Your task to perform on an android device: Open calendar and show me the second week of next month Image 0: 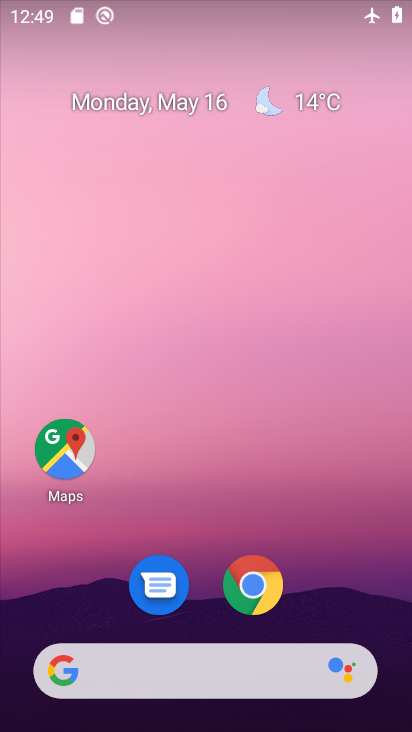
Step 0: drag from (322, 522) to (276, 41)
Your task to perform on an android device: Open calendar and show me the second week of next month Image 1: 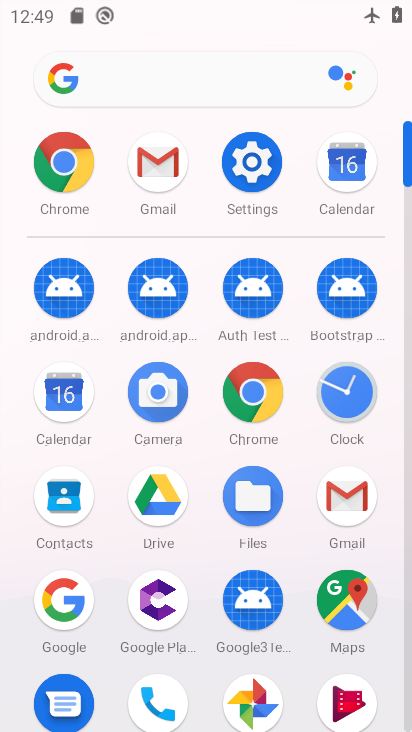
Step 1: click (334, 165)
Your task to perform on an android device: Open calendar and show me the second week of next month Image 2: 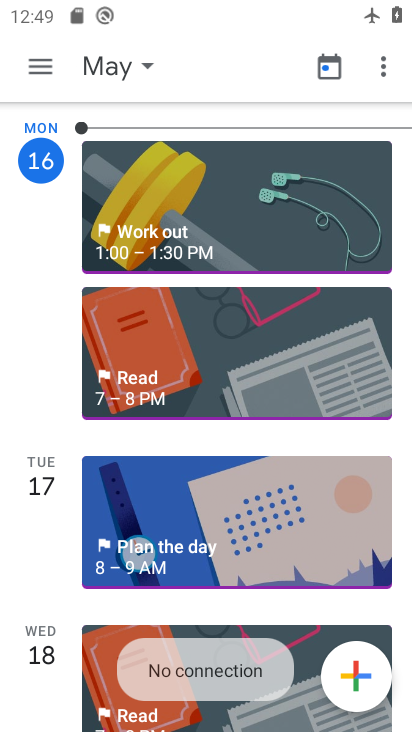
Step 2: click (41, 58)
Your task to perform on an android device: Open calendar and show me the second week of next month Image 3: 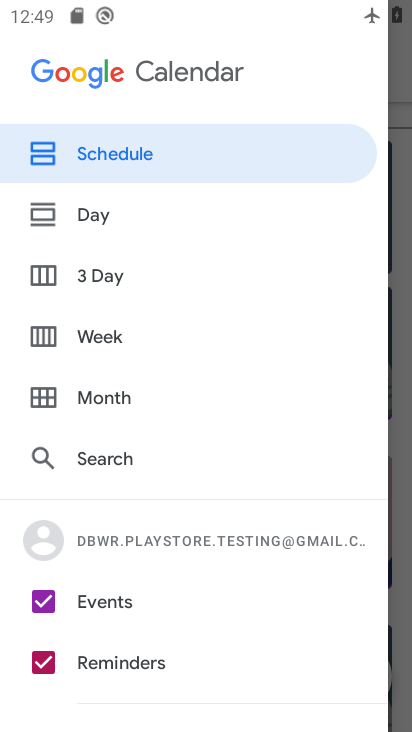
Step 3: click (97, 396)
Your task to perform on an android device: Open calendar and show me the second week of next month Image 4: 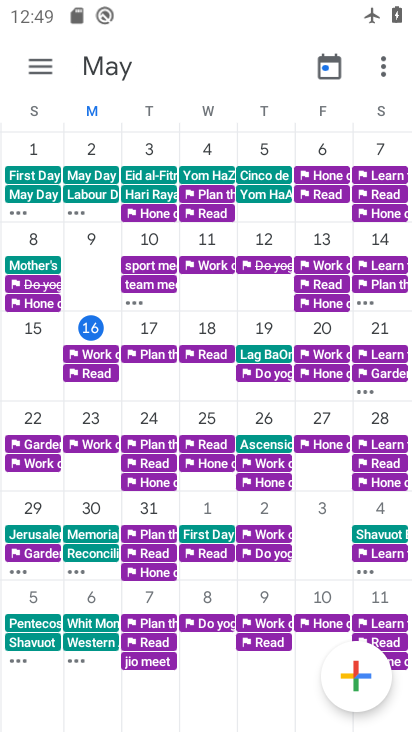
Step 4: drag from (370, 389) to (1, 428)
Your task to perform on an android device: Open calendar and show me the second week of next month Image 5: 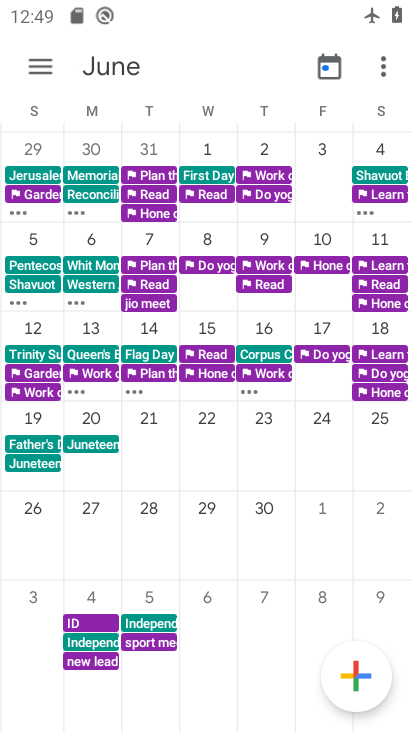
Step 5: click (37, 329)
Your task to perform on an android device: Open calendar and show me the second week of next month Image 6: 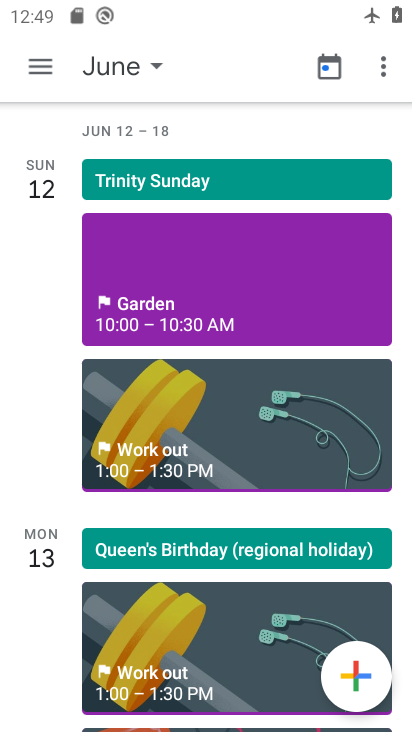
Step 6: click (37, 67)
Your task to perform on an android device: Open calendar and show me the second week of next month Image 7: 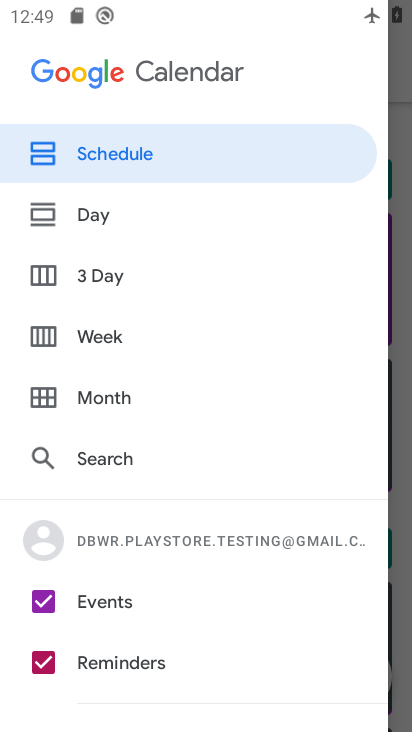
Step 7: click (46, 330)
Your task to perform on an android device: Open calendar and show me the second week of next month Image 8: 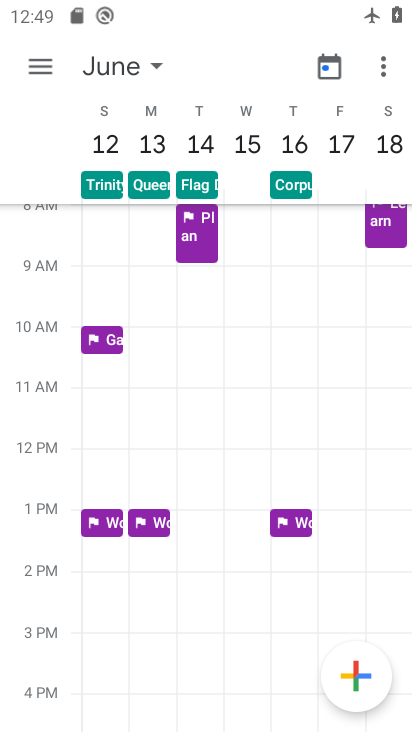
Step 8: task complete